Your task to perform on an android device: Open Android settings Image 0: 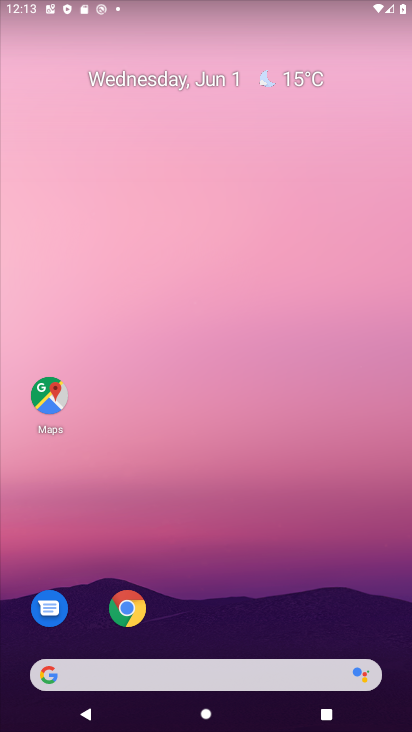
Step 0: drag from (226, 611) to (287, 208)
Your task to perform on an android device: Open Android settings Image 1: 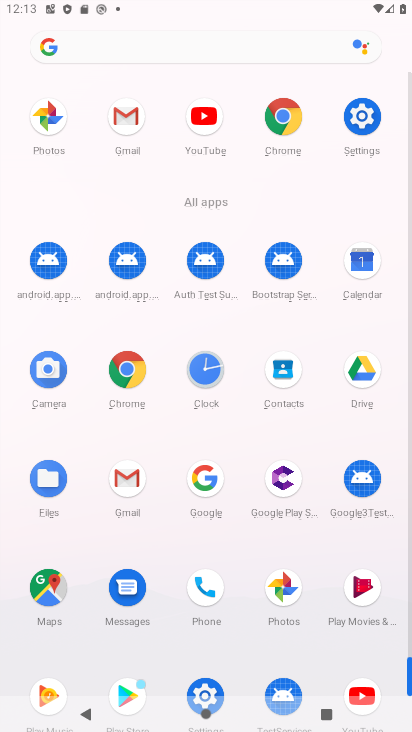
Step 1: click (377, 114)
Your task to perform on an android device: Open Android settings Image 2: 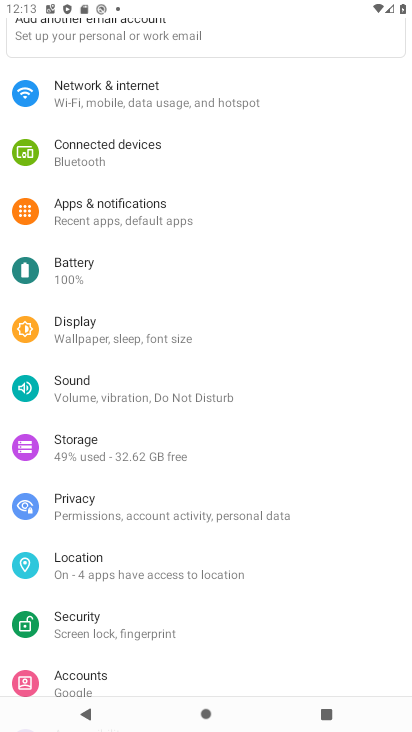
Step 2: drag from (155, 567) to (171, 297)
Your task to perform on an android device: Open Android settings Image 3: 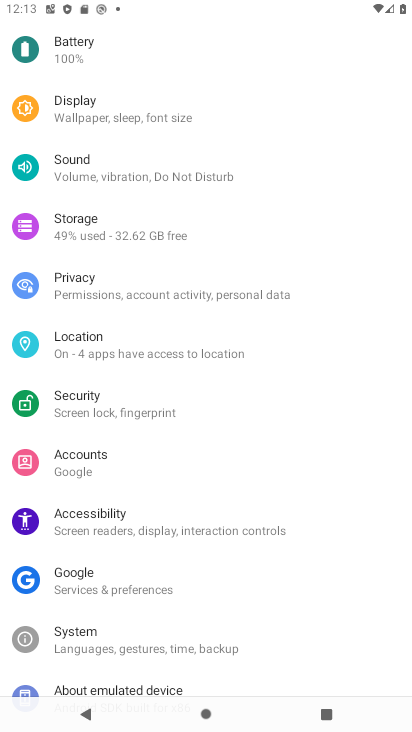
Step 3: drag from (111, 637) to (128, 478)
Your task to perform on an android device: Open Android settings Image 4: 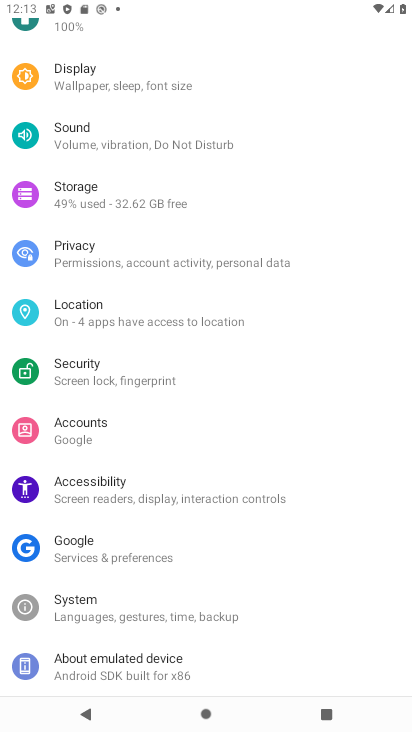
Step 4: click (119, 655)
Your task to perform on an android device: Open Android settings Image 5: 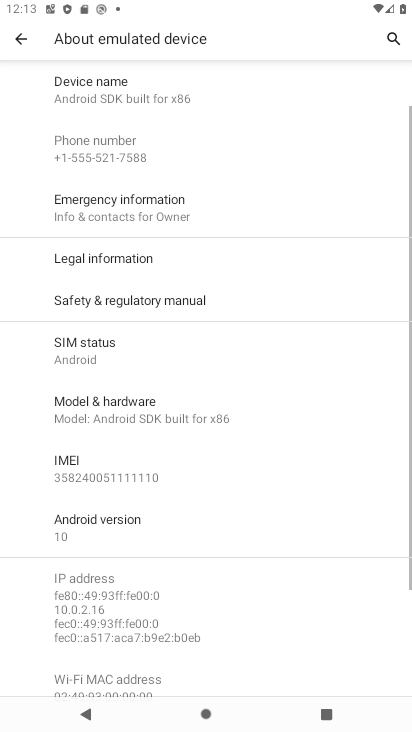
Step 5: click (110, 538)
Your task to perform on an android device: Open Android settings Image 6: 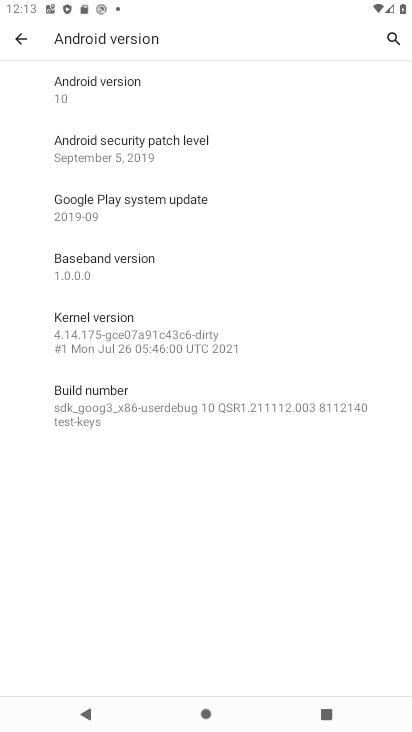
Step 6: task complete